Your task to perform on an android device: Check out the best rated 4k TV on Best Buy. Image 0: 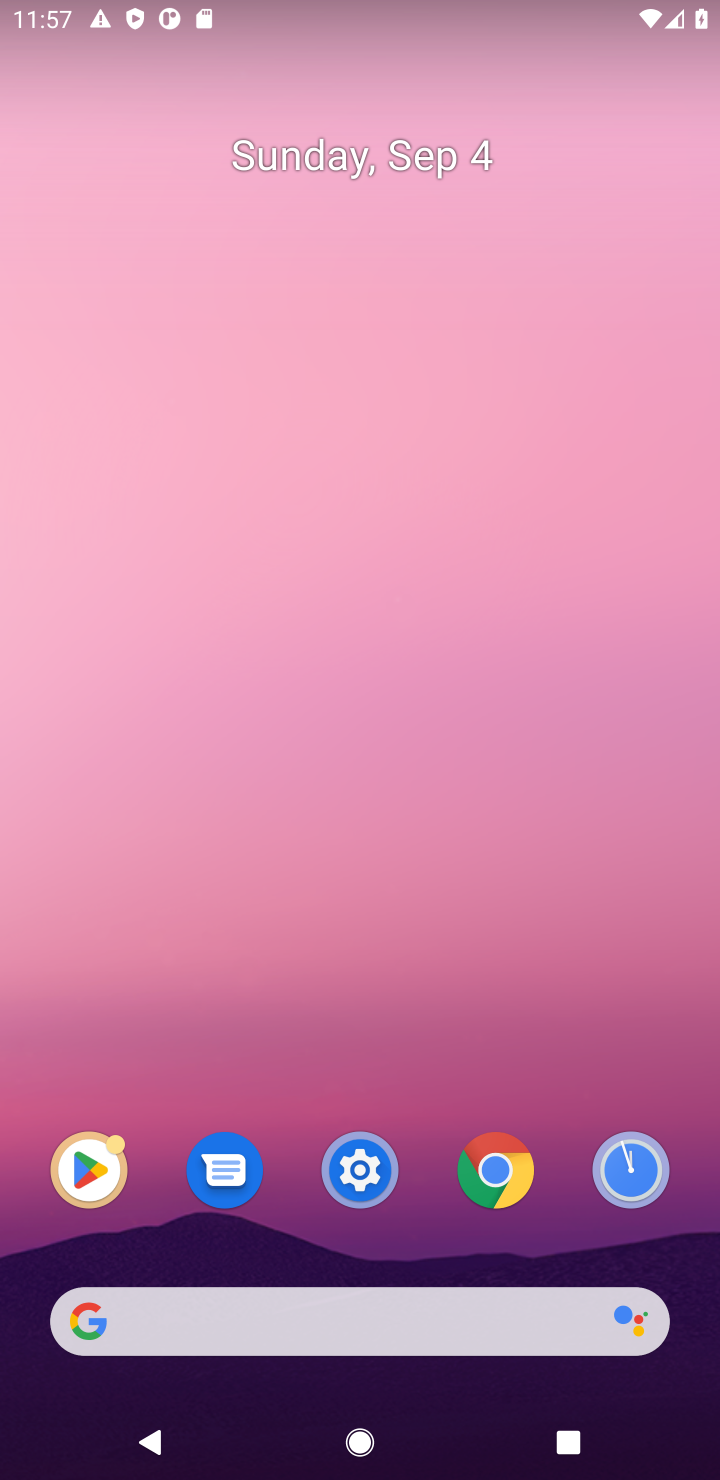
Step 0: click (379, 1309)
Your task to perform on an android device: Check out the best rated 4k TV on Best Buy. Image 1: 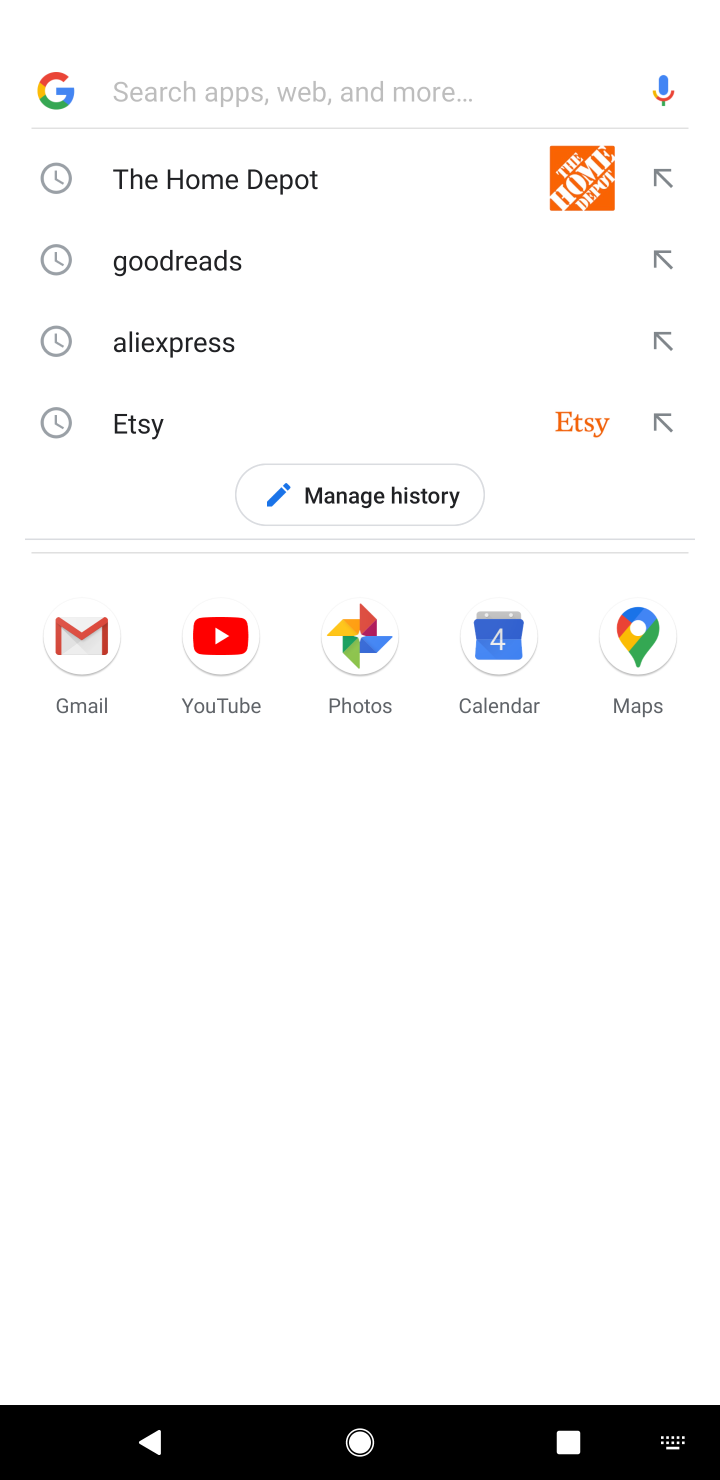
Step 1: type "Best Buy"
Your task to perform on an android device: Check out the best rated 4k TV on Best Buy. Image 2: 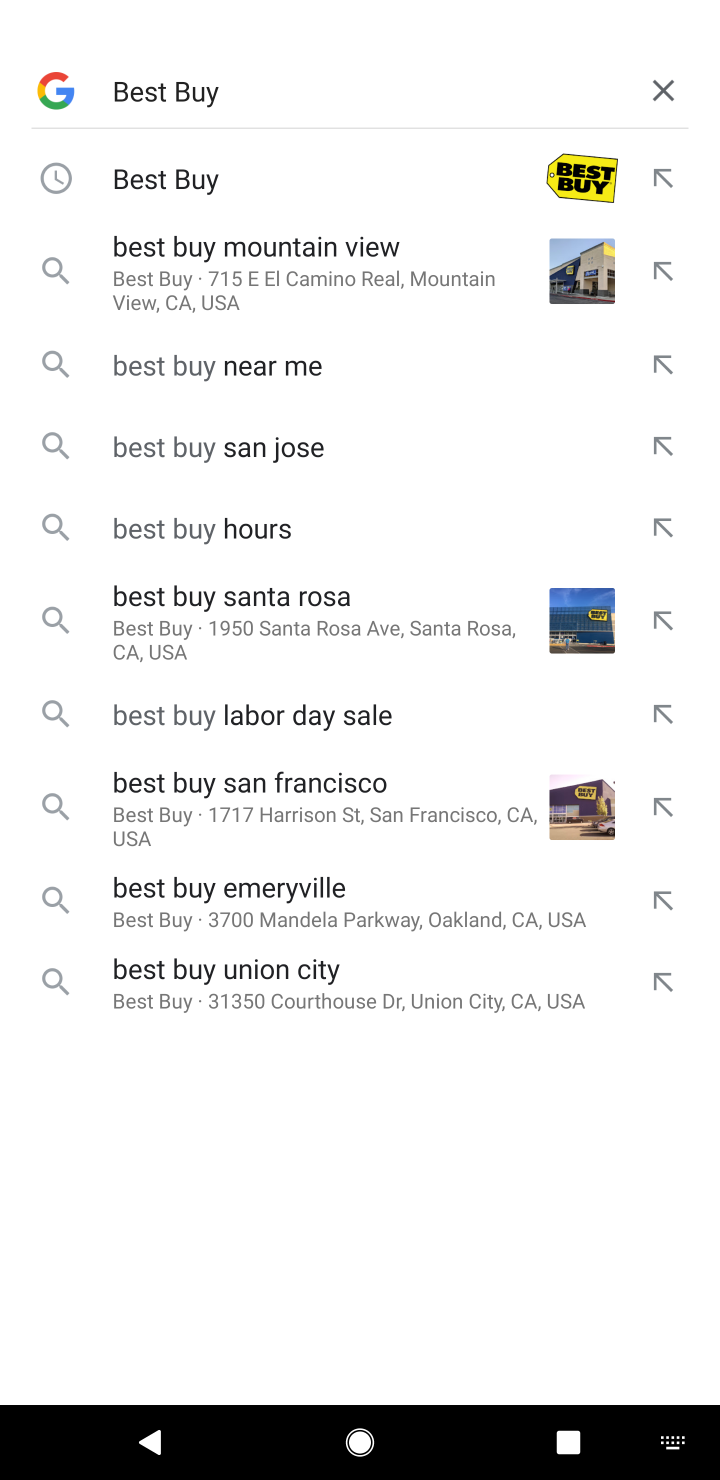
Step 2: click (270, 213)
Your task to perform on an android device: Check out the best rated 4k TV on Best Buy. Image 3: 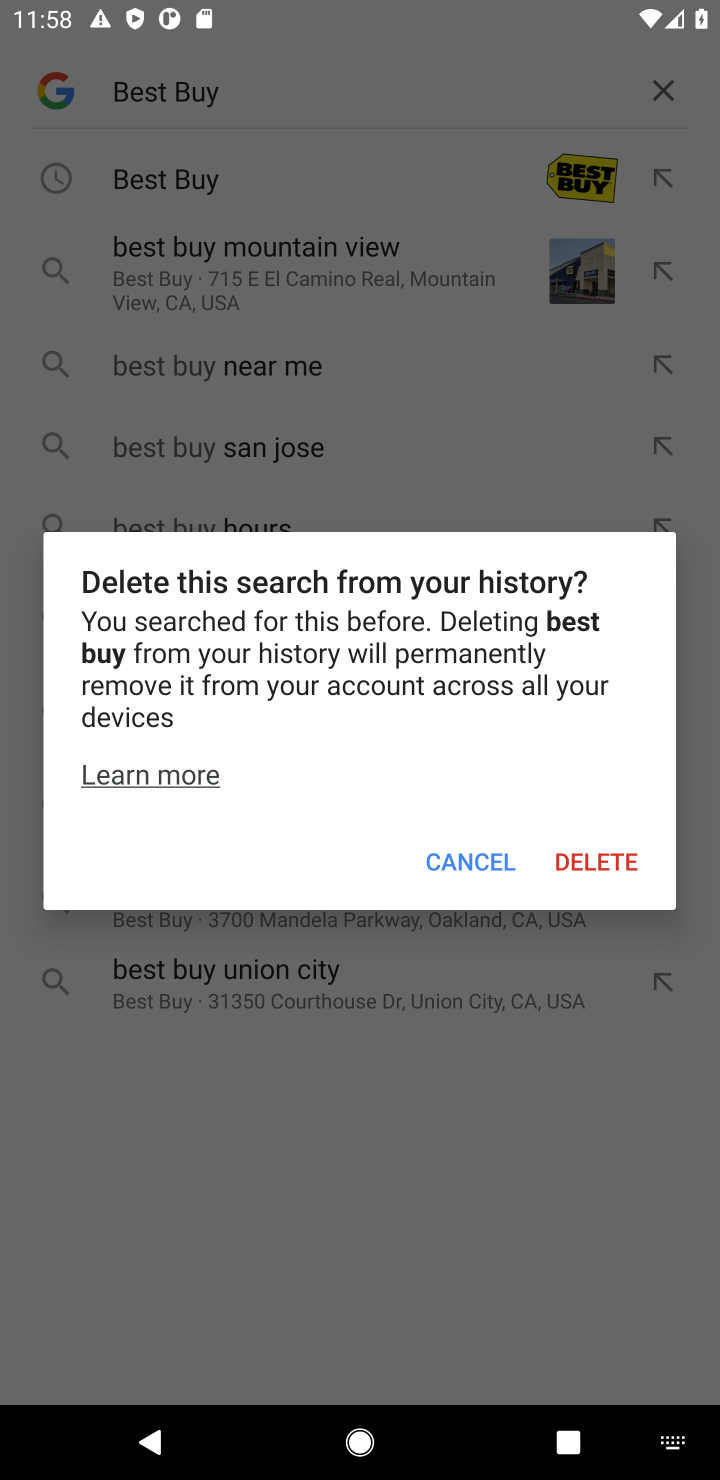
Step 3: click (199, 200)
Your task to perform on an android device: Check out the best rated 4k TV on Best Buy. Image 4: 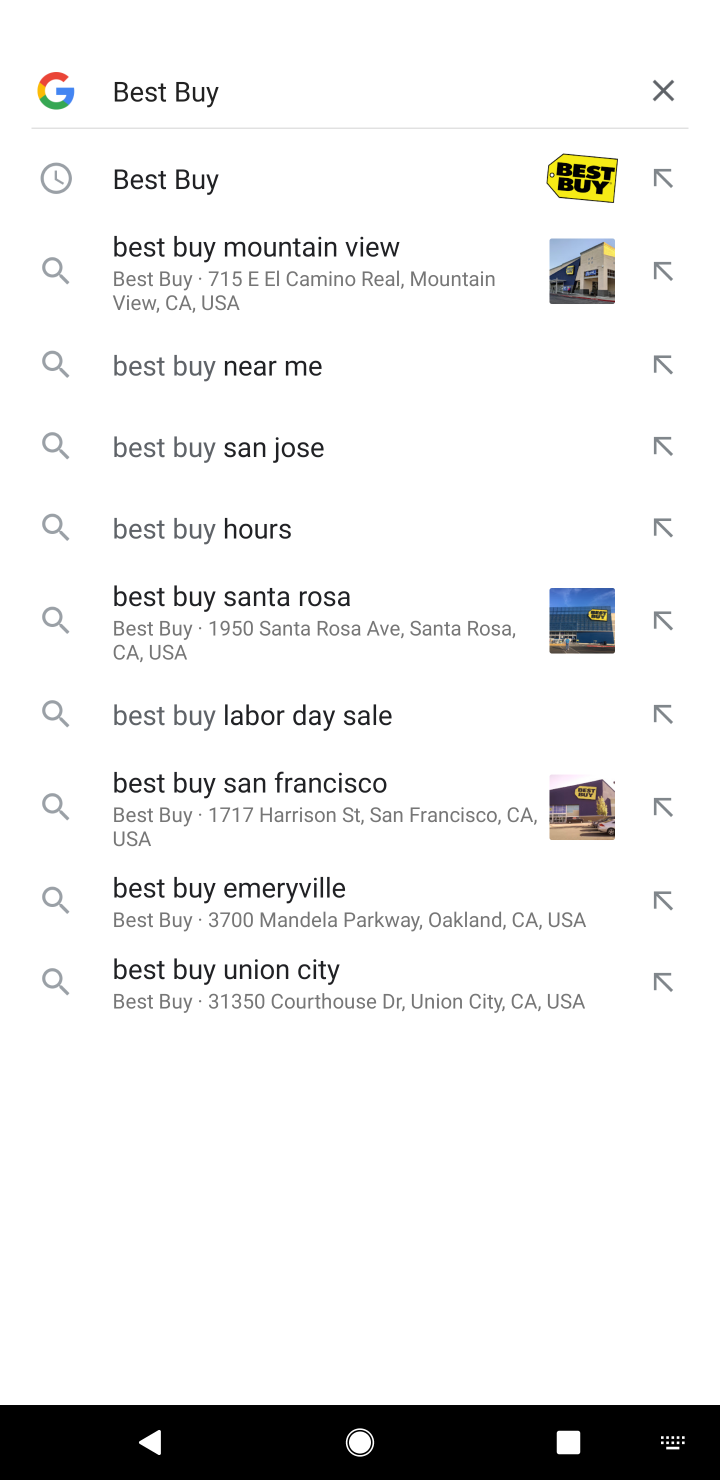
Step 4: click (199, 200)
Your task to perform on an android device: Check out the best rated 4k TV on Best Buy. Image 5: 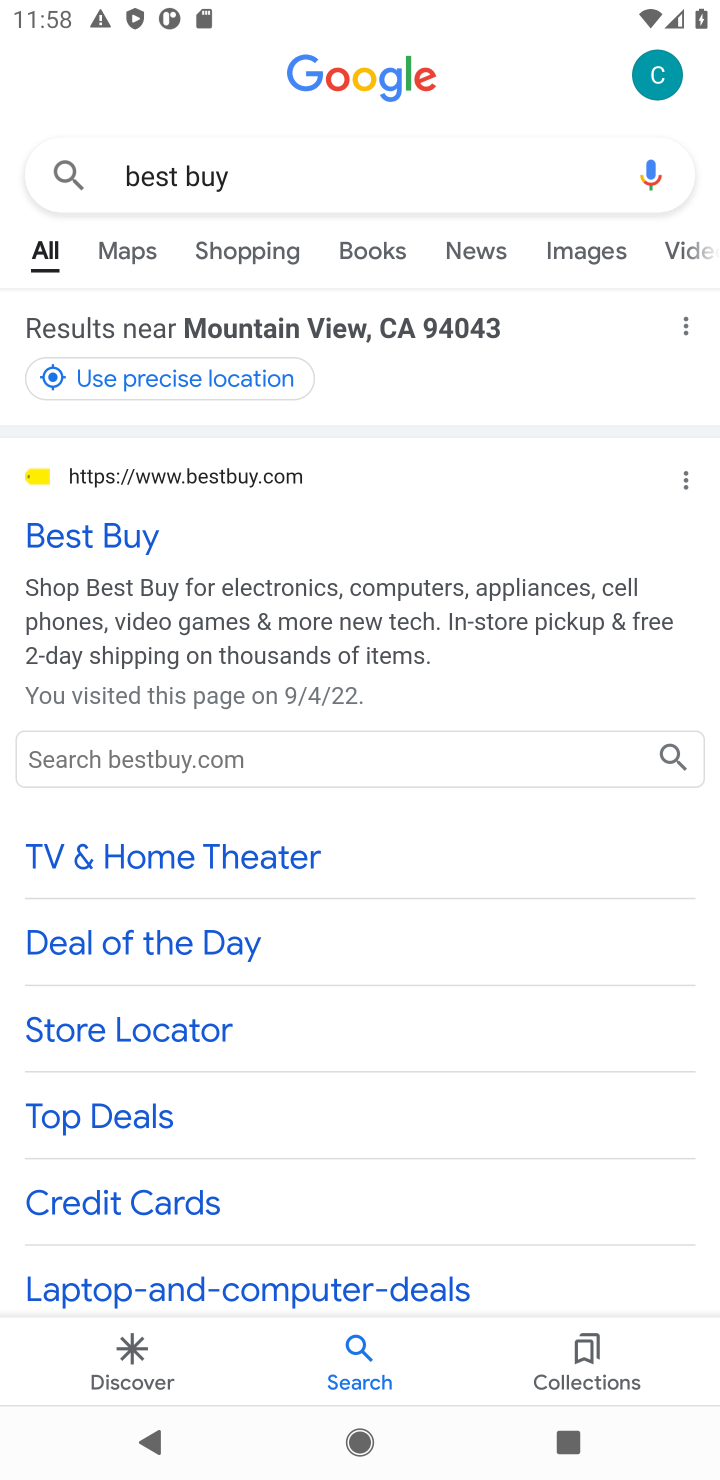
Step 5: click (141, 562)
Your task to perform on an android device: Check out the best rated 4k TV on Best Buy. Image 6: 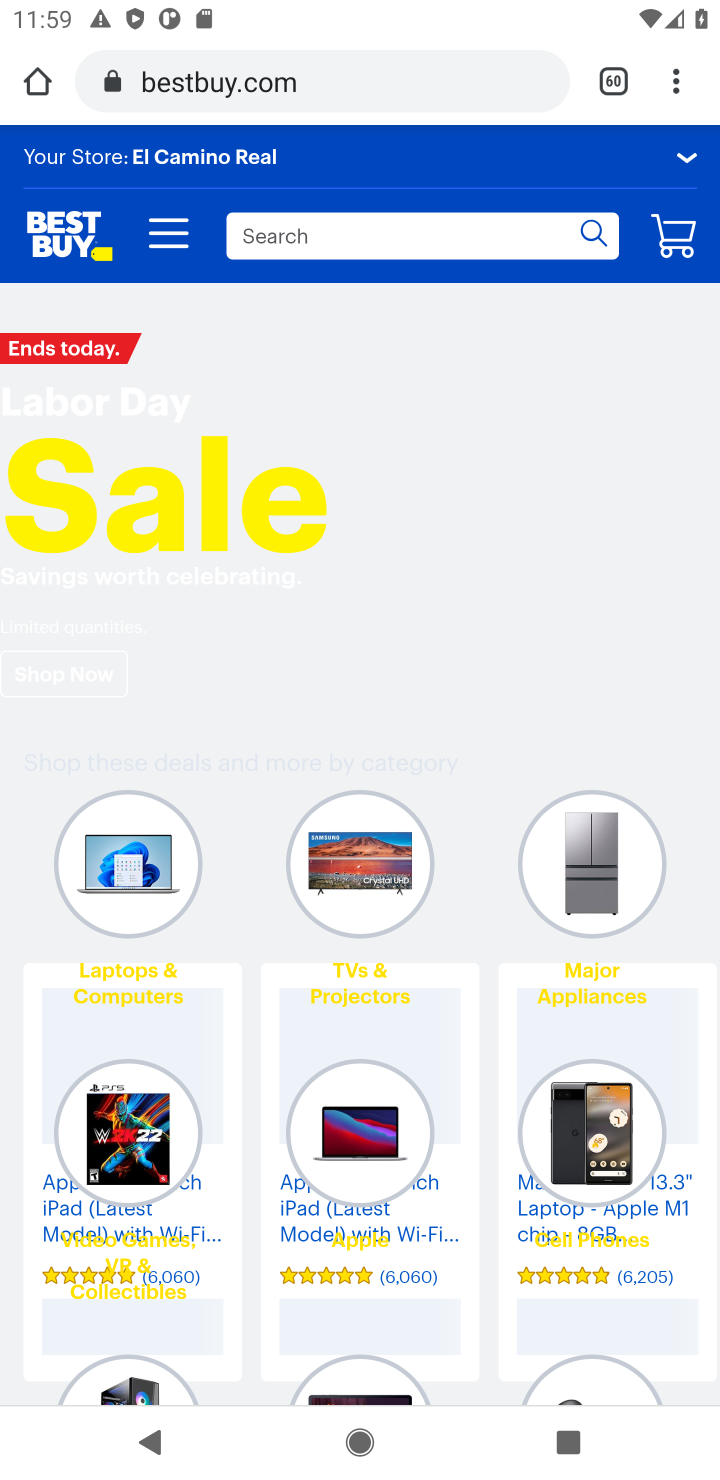
Step 6: click (336, 233)
Your task to perform on an android device: Check out the best rated 4k TV on Best Buy. Image 7: 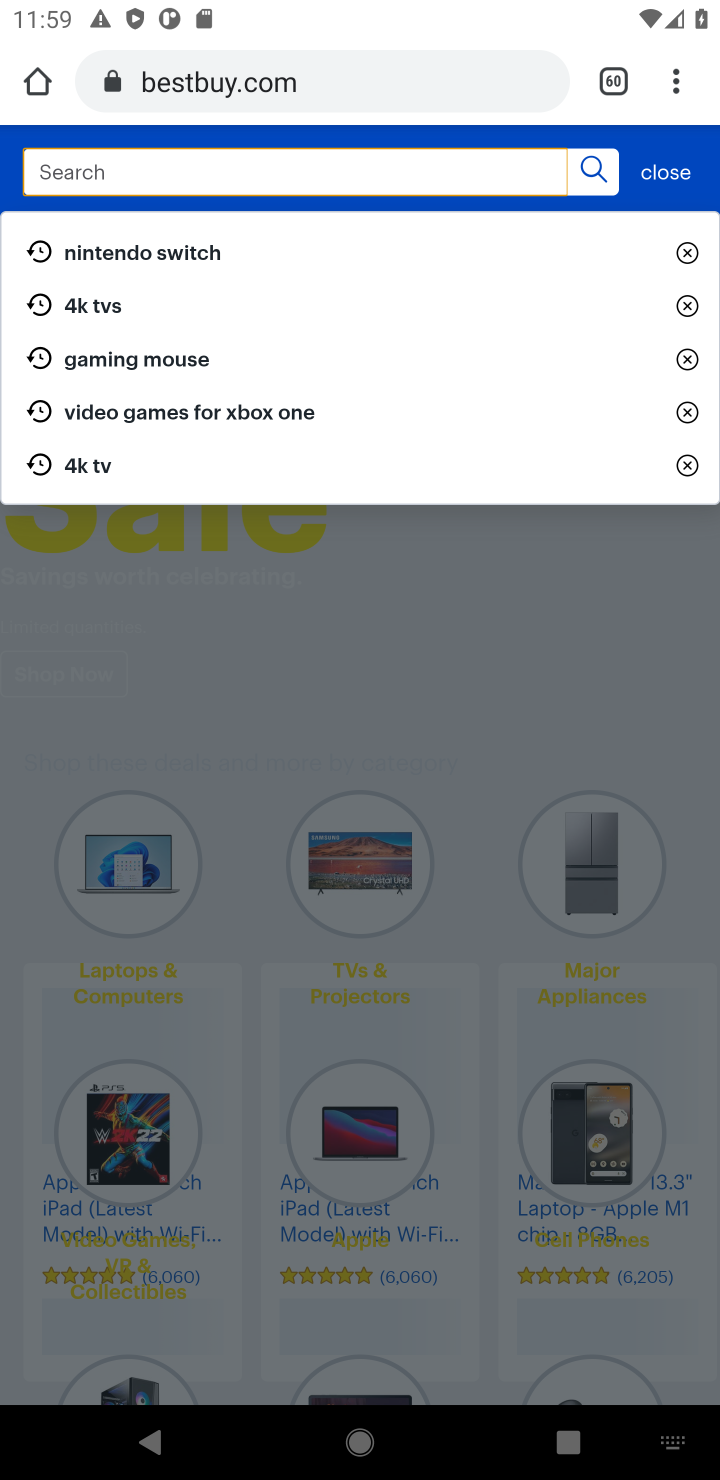
Step 7: click (85, 303)
Your task to perform on an android device: Check out the best rated 4k TV on Best Buy. Image 8: 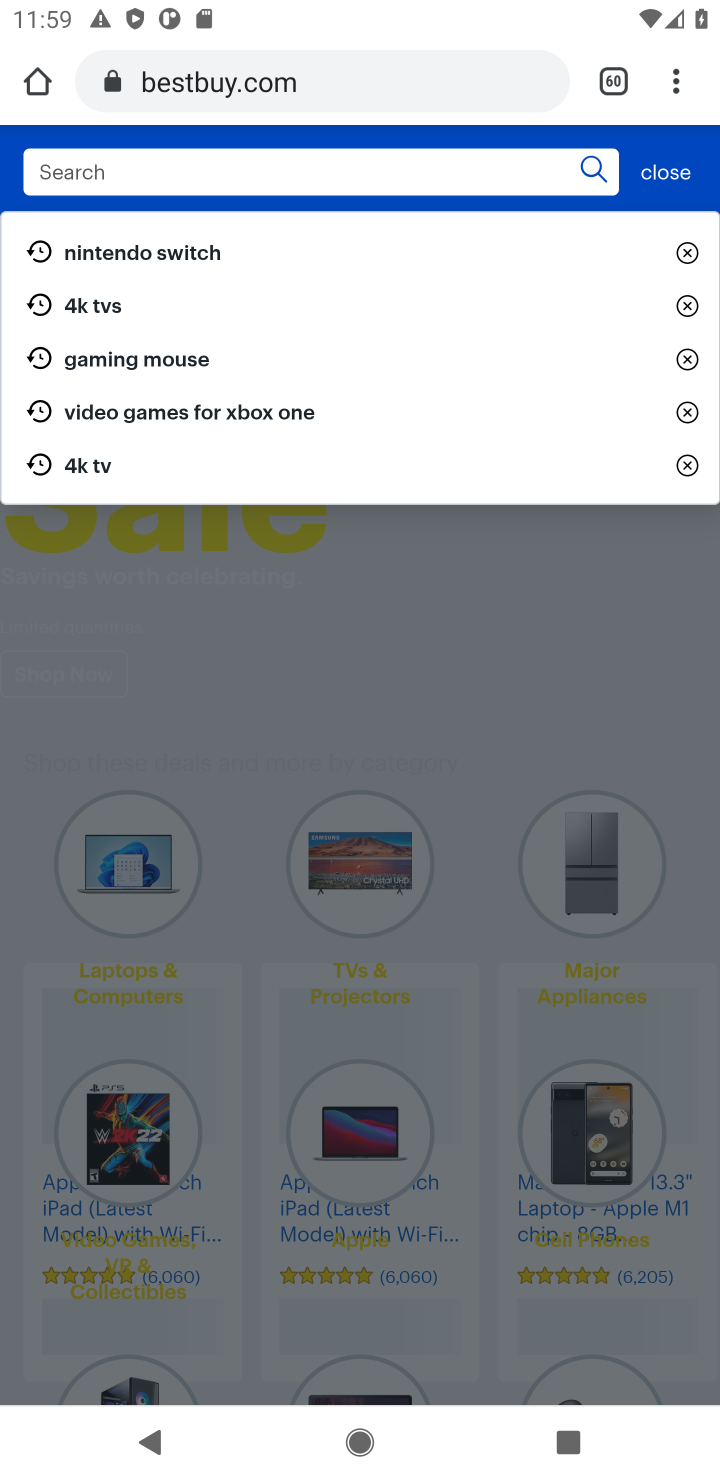
Step 8: click (97, 308)
Your task to perform on an android device: Check out the best rated 4k TV on Best Buy. Image 9: 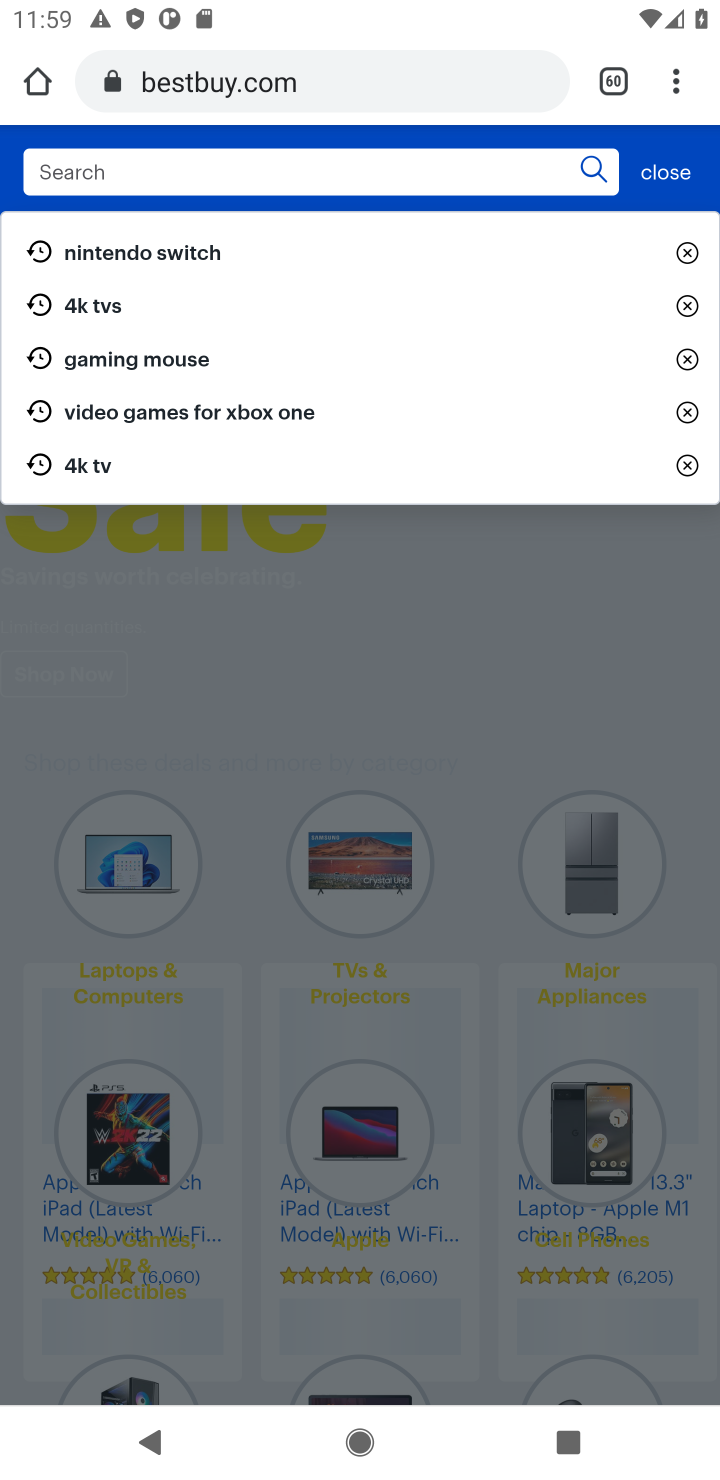
Step 9: click (99, 291)
Your task to perform on an android device: Check out the best rated 4k TV on Best Buy. Image 10: 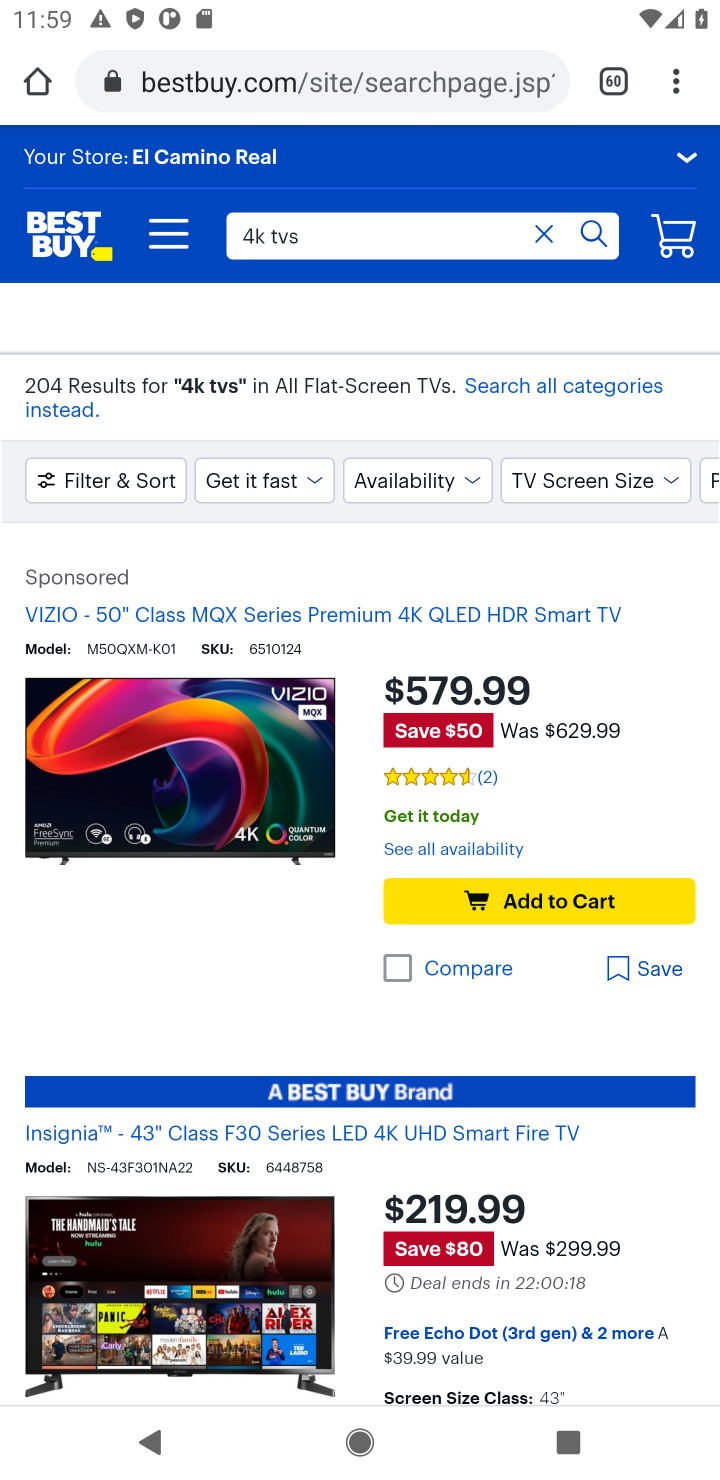
Step 10: task complete